Your task to perform on an android device: turn off notifications in google photos Image 0: 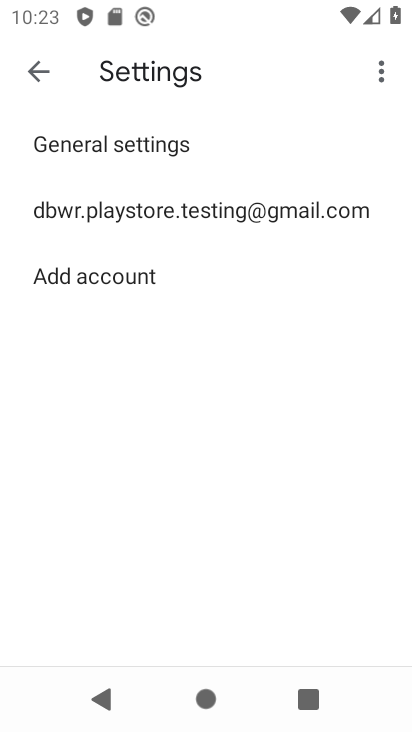
Step 0: press home button
Your task to perform on an android device: turn off notifications in google photos Image 1: 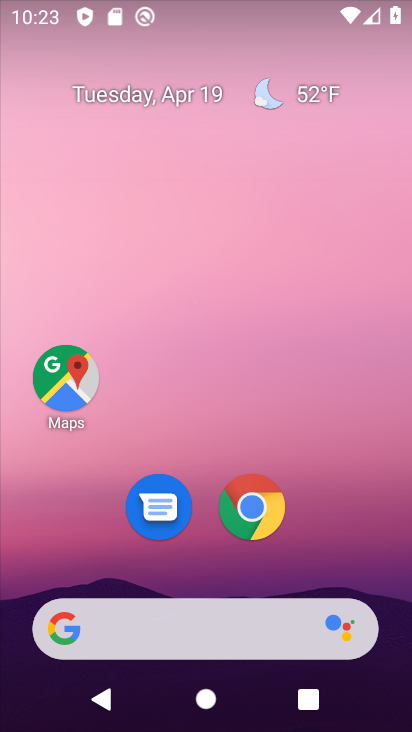
Step 1: drag from (378, 556) to (391, 109)
Your task to perform on an android device: turn off notifications in google photos Image 2: 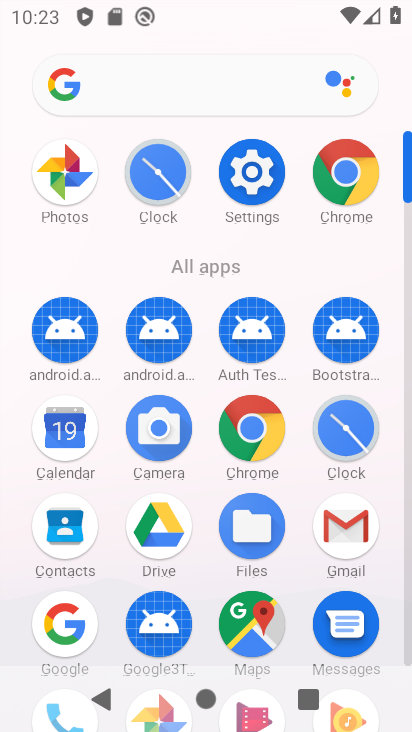
Step 2: drag from (379, 564) to (387, 213)
Your task to perform on an android device: turn off notifications in google photos Image 3: 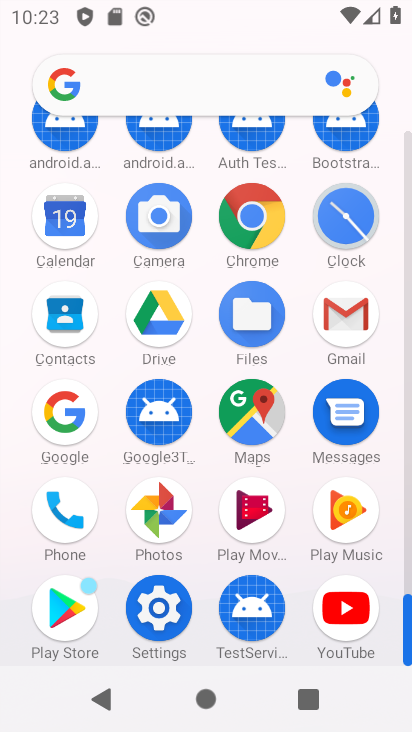
Step 3: click (165, 520)
Your task to perform on an android device: turn off notifications in google photos Image 4: 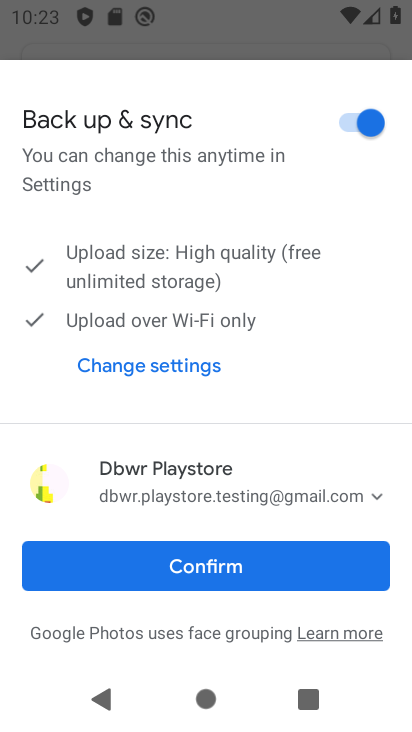
Step 4: click (238, 578)
Your task to perform on an android device: turn off notifications in google photos Image 5: 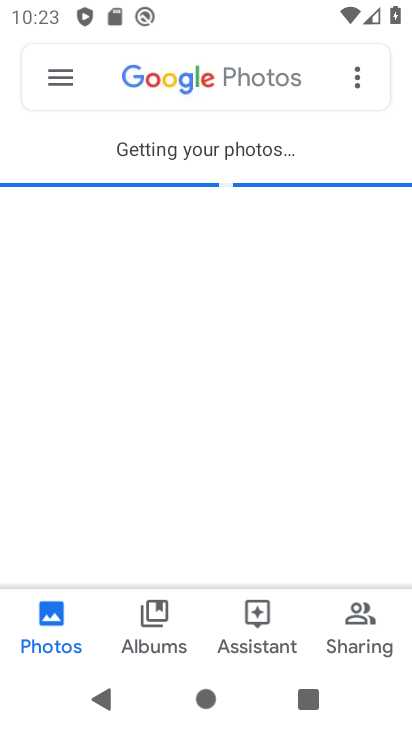
Step 5: click (59, 61)
Your task to perform on an android device: turn off notifications in google photos Image 6: 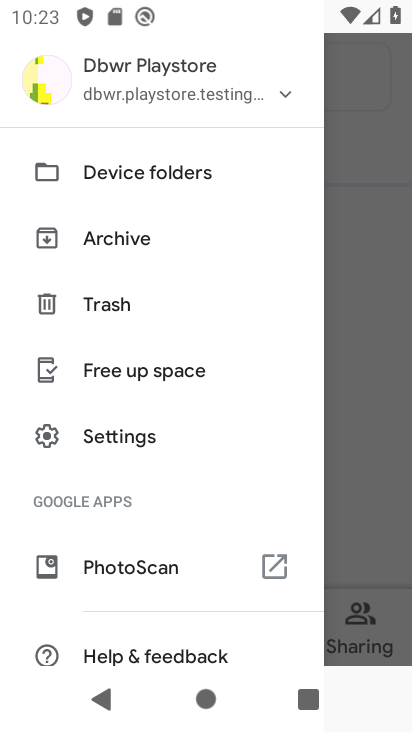
Step 6: drag from (241, 515) to (254, 272)
Your task to perform on an android device: turn off notifications in google photos Image 7: 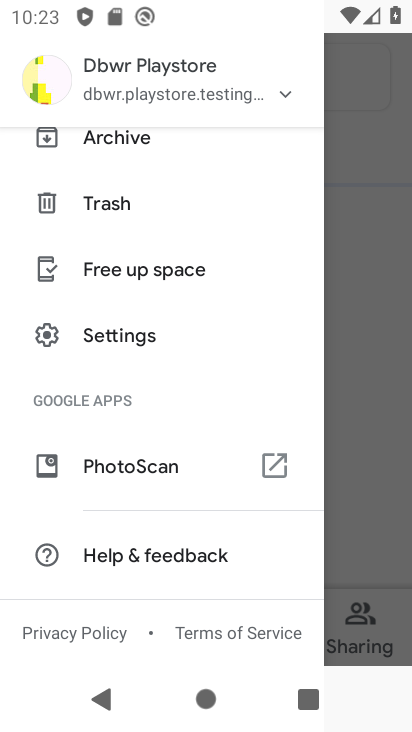
Step 7: click (138, 339)
Your task to perform on an android device: turn off notifications in google photos Image 8: 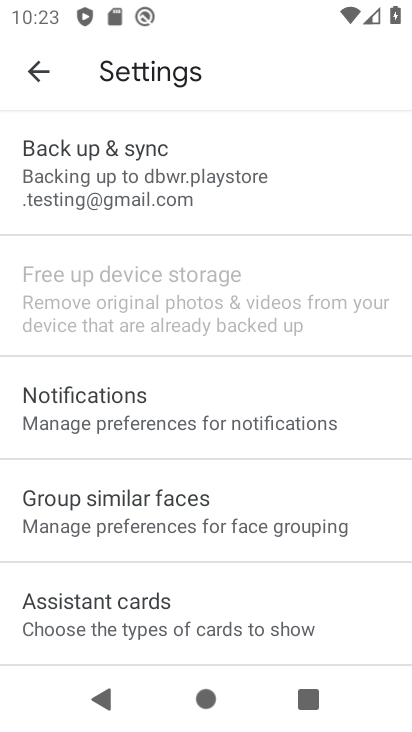
Step 8: click (188, 418)
Your task to perform on an android device: turn off notifications in google photos Image 9: 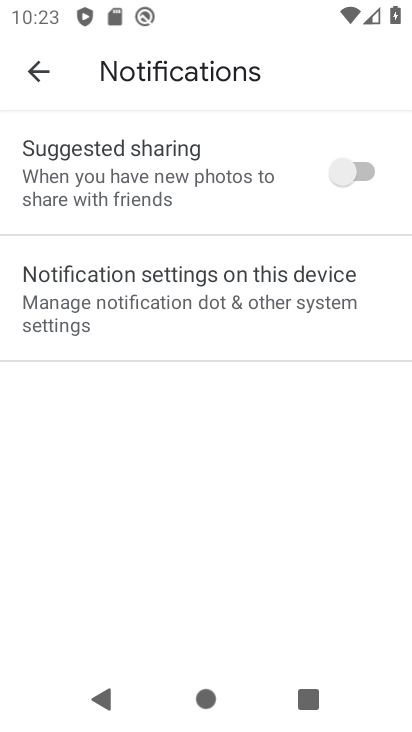
Step 9: click (246, 287)
Your task to perform on an android device: turn off notifications in google photos Image 10: 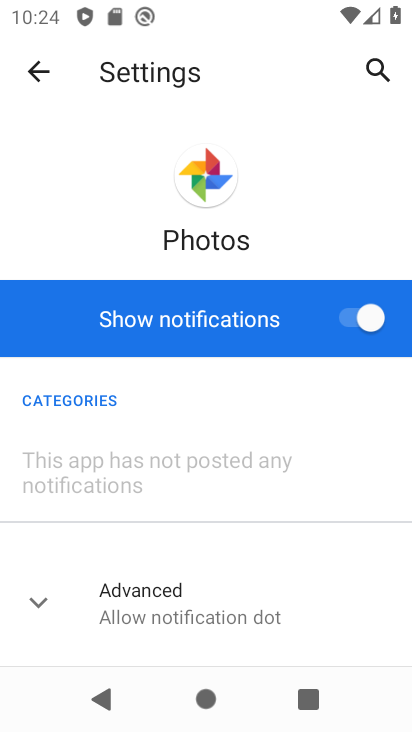
Step 10: click (373, 323)
Your task to perform on an android device: turn off notifications in google photos Image 11: 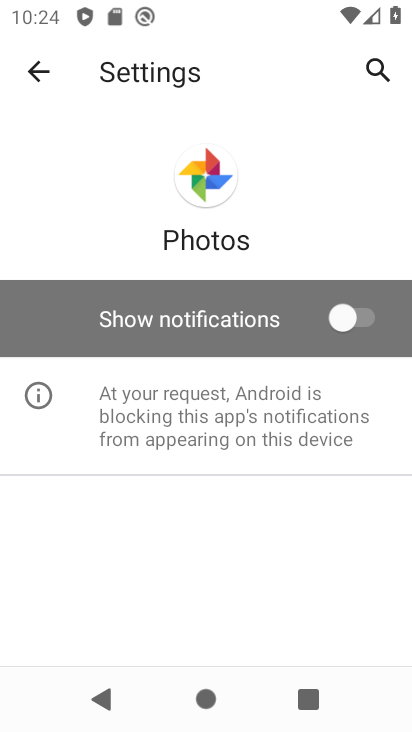
Step 11: task complete